Your task to perform on an android device: change your default location settings in chrome Image 0: 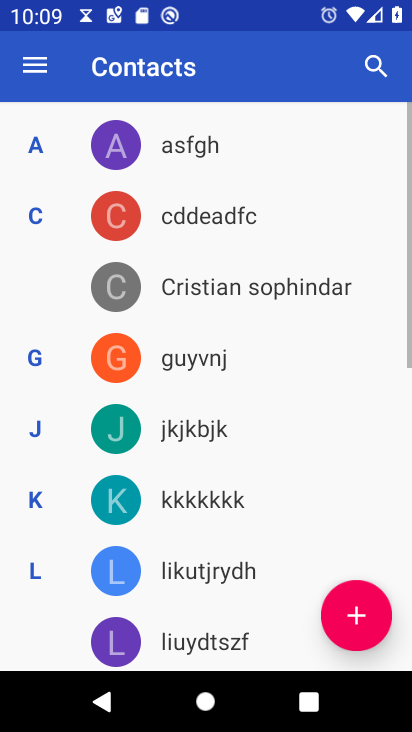
Step 0: press home button
Your task to perform on an android device: change your default location settings in chrome Image 1: 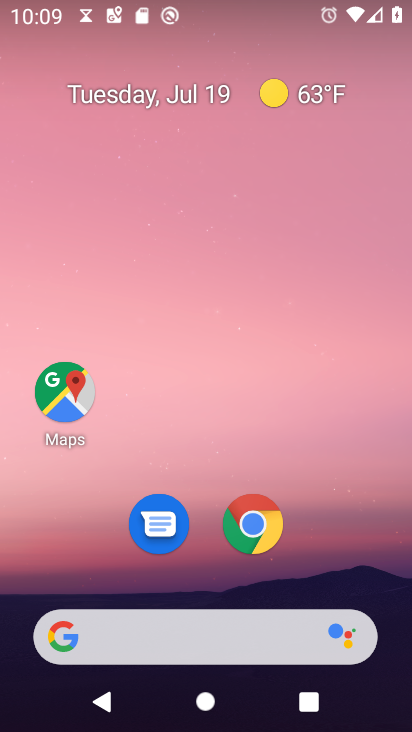
Step 1: click (258, 523)
Your task to perform on an android device: change your default location settings in chrome Image 2: 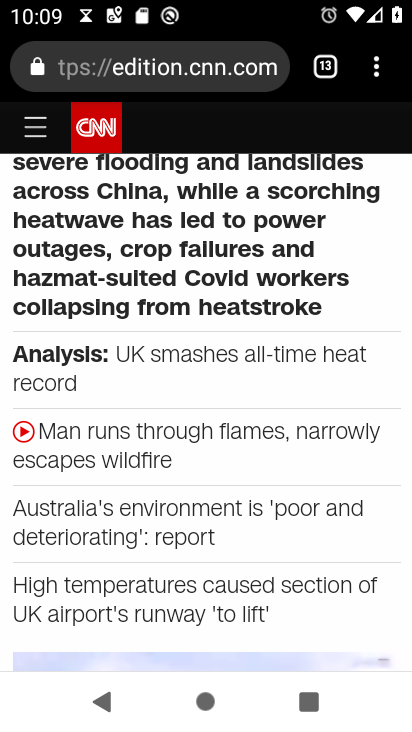
Step 2: drag from (380, 59) to (250, 527)
Your task to perform on an android device: change your default location settings in chrome Image 3: 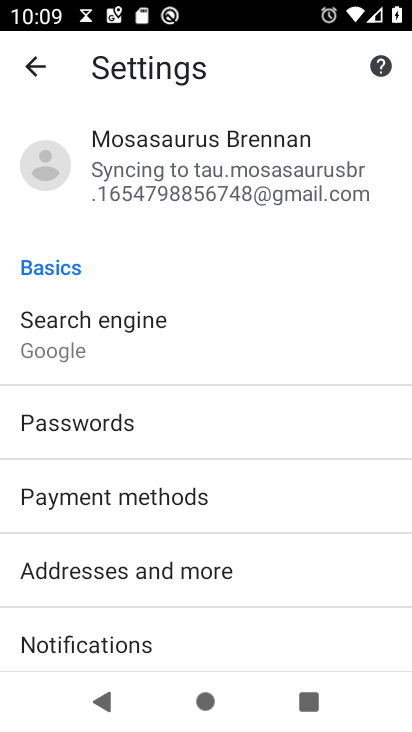
Step 3: drag from (185, 594) to (268, 136)
Your task to perform on an android device: change your default location settings in chrome Image 4: 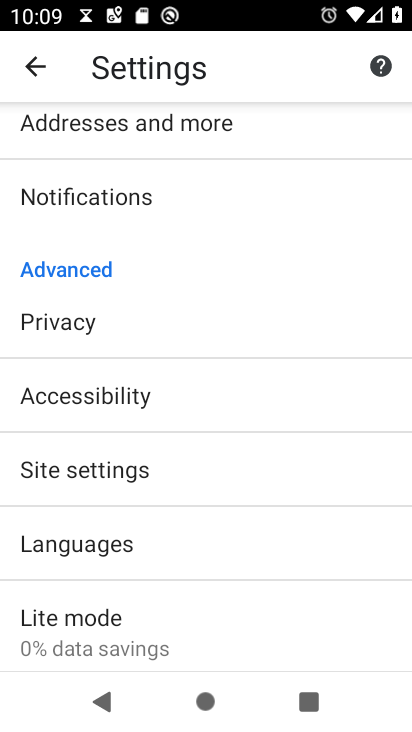
Step 4: click (138, 470)
Your task to perform on an android device: change your default location settings in chrome Image 5: 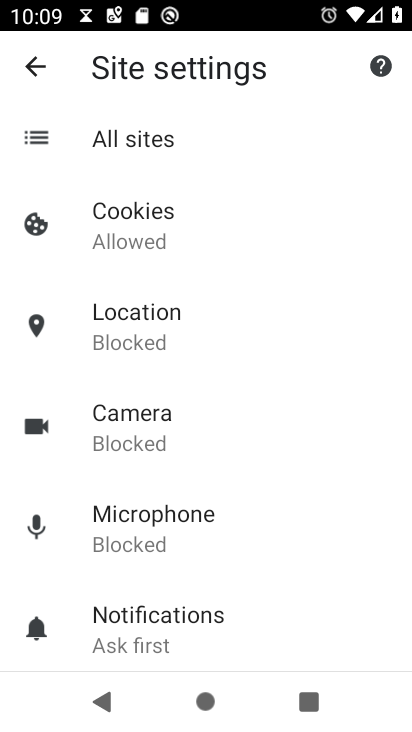
Step 5: click (161, 330)
Your task to perform on an android device: change your default location settings in chrome Image 6: 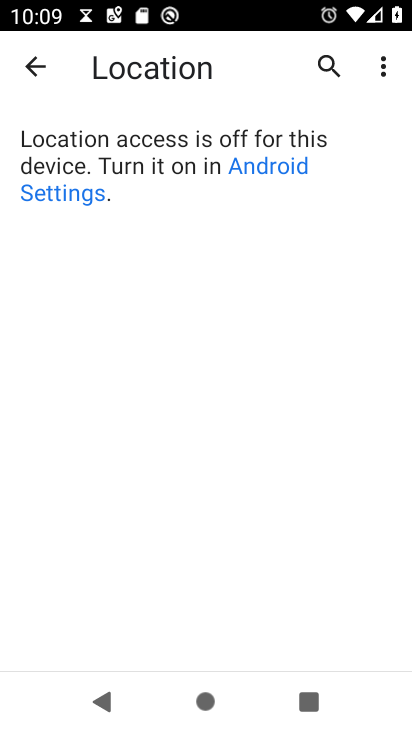
Step 6: task complete